Your task to perform on an android device: Show me productivity apps on the Play Store Image 0: 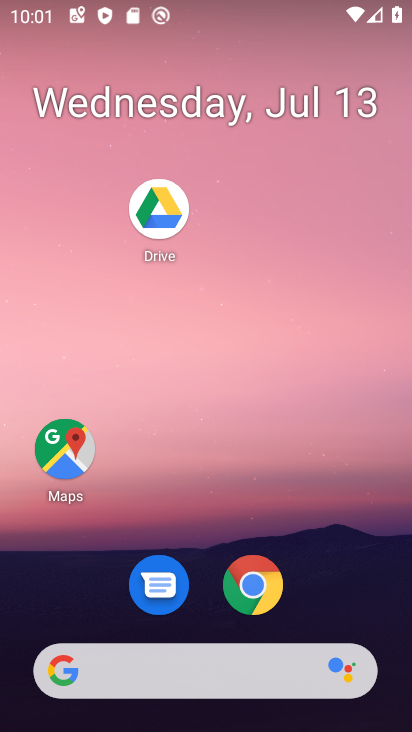
Step 0: press home button
Your task to perform on an android device: Show me productivity apps on the Play Store Image 1: 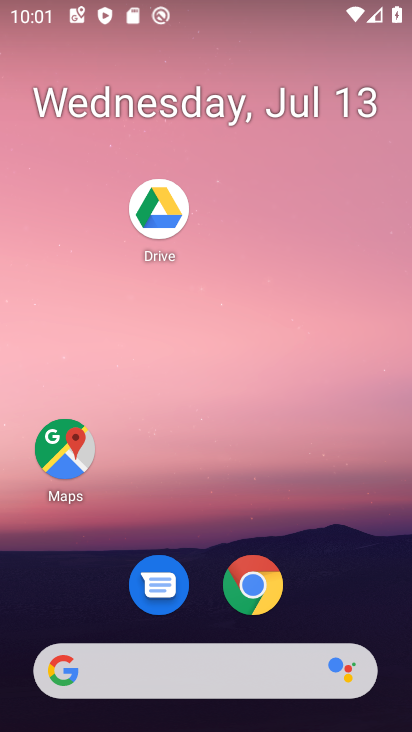
Step 1: drag from (215, 432) to (343, 33)
Your task to perform on an android device: Show me productivity apps on the Play Store Image 2: 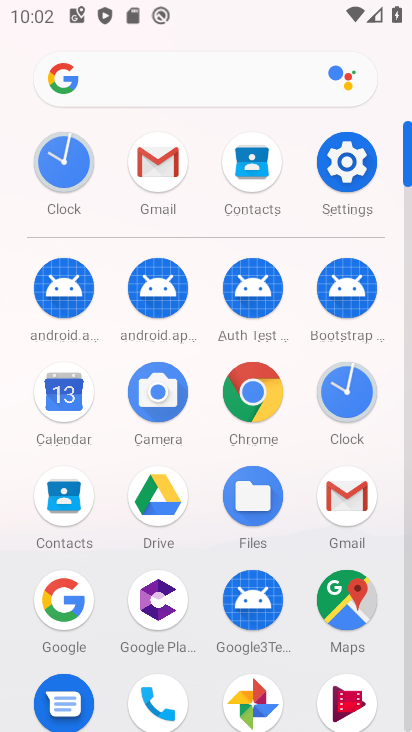
Step 2: drag from (185, 660) to (410, 58)
Your task to perform on an android device: Show me productivity apps on the Play Store Image 3: 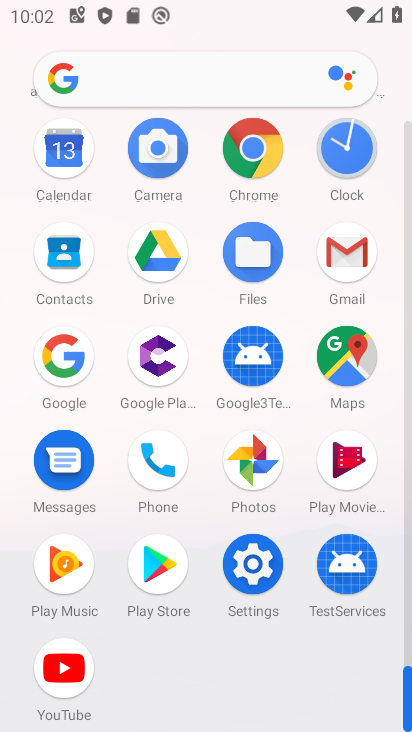
Step 3: click (155, 566)
Your task to perform on an android device: Show me productivity apps on the Play Store Image 4: 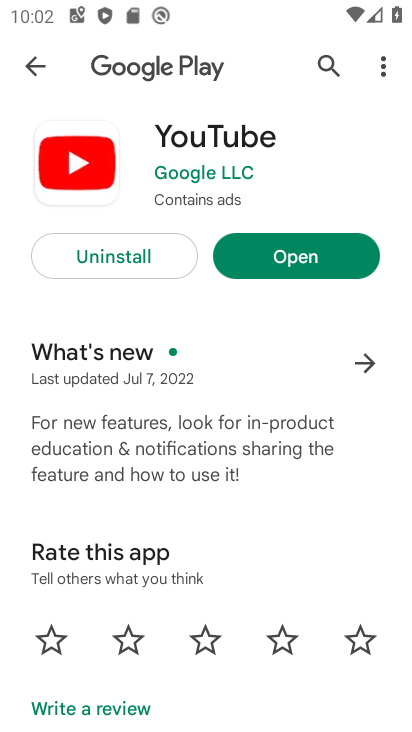
Step 4: click (37, 69)
Your task to perform on an android device: Show me productivity apps on the Play Store Image 5: 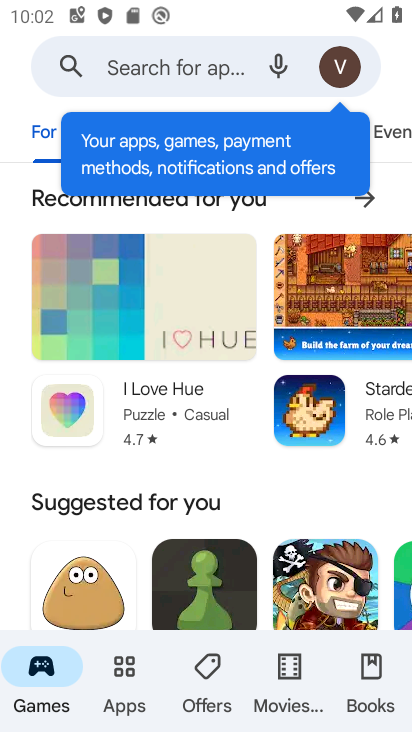
Step 5: click (114, 685)
Your task to perform on an android device: Show me productivity apps on the Play Store Image 6: 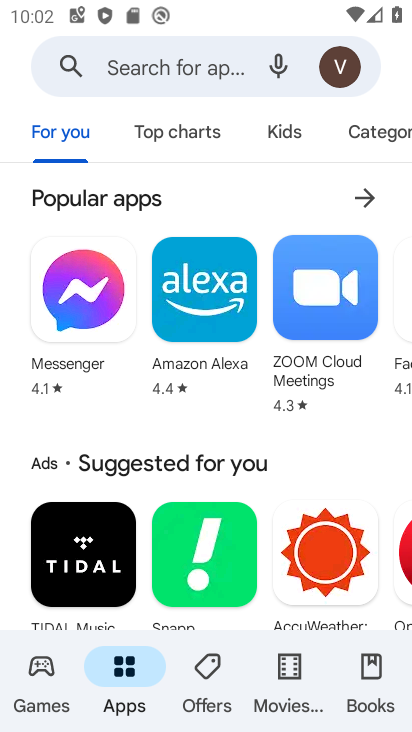
Step 6: click (377, 134)
Your task to perform on an android device: Show me productivity apps on the Play Store Image 7: 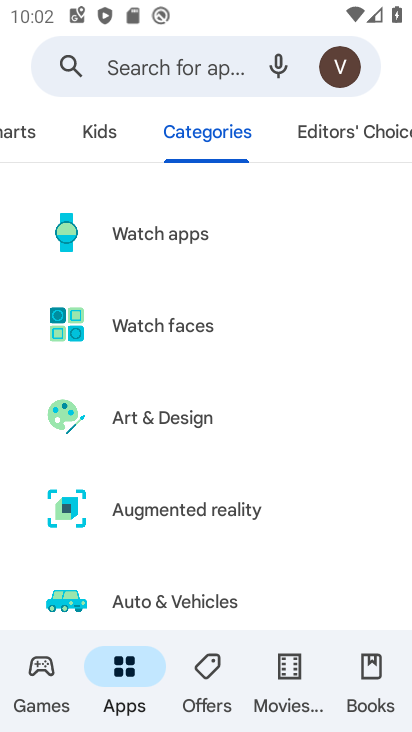
Step 7: drag from (259, 568) to (409, 140)
Your task to perform on an android device: Show me productivity apps on the Play Store Image 8: 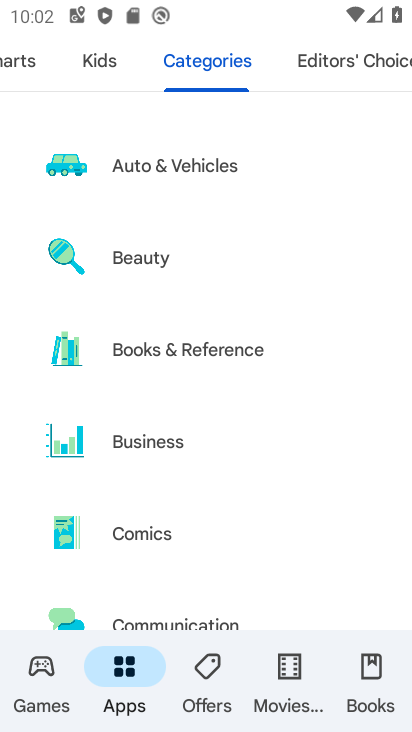
Step 8: drag from (242, 552) to (339, 15)
Your task to perform on an android device: Show me productivity apps on the Play Store Image 9: 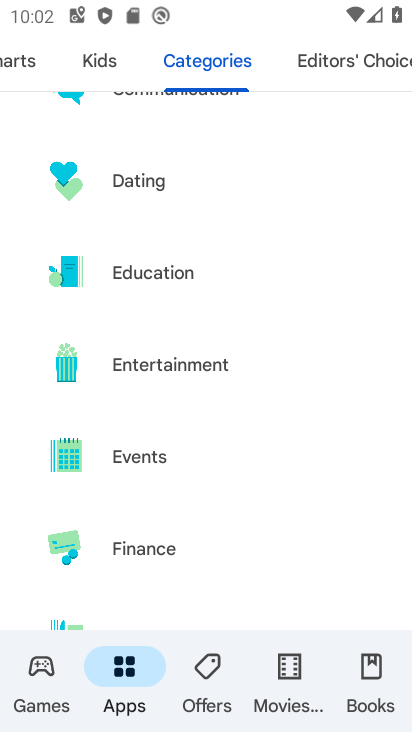
Step 9: drag from (230, 527) to (384, 21)
Your task to perform on an android device: Show me productivity apps on the Play Store Image 10: 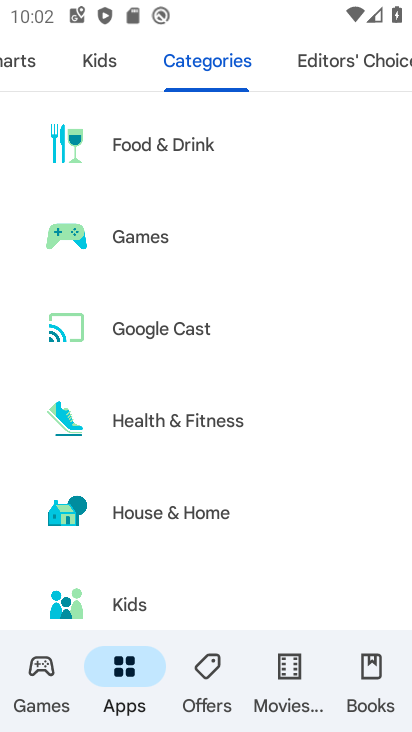
Step 10: drag from (268, 503) to (320, 10)
Your task to perform on an android device: Show me productivity apps on the Play Store Image 11: 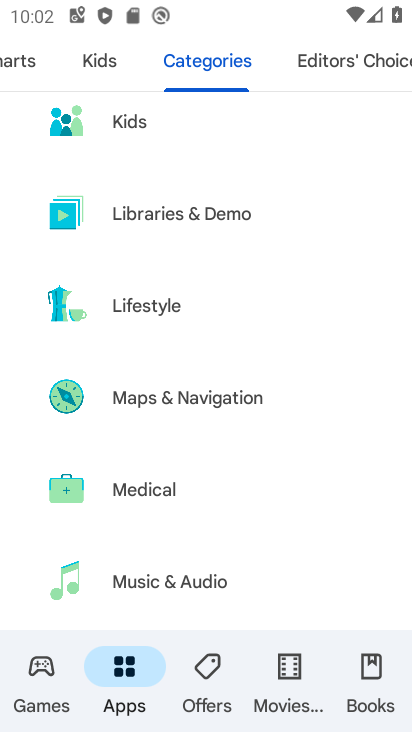
Step 11: drag from (233, 567) to (299, 113)
Your task to perform on an android device: Show me productivity apps on the Play Store Image 12: 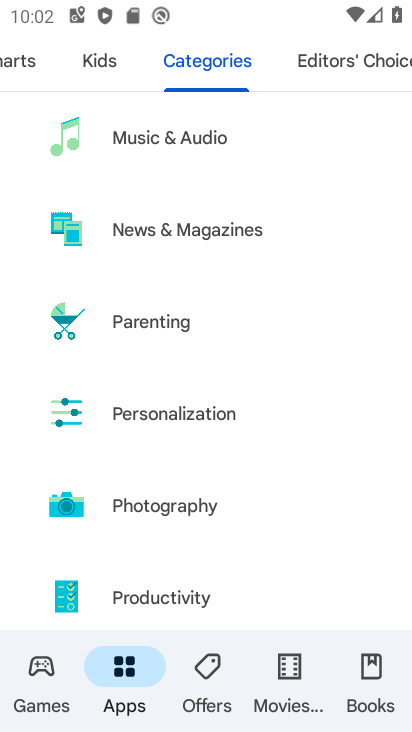
Step 12: click (174, 593)
Your task to perform on an android device: Show me productivity apps on the Play Store Image 13: 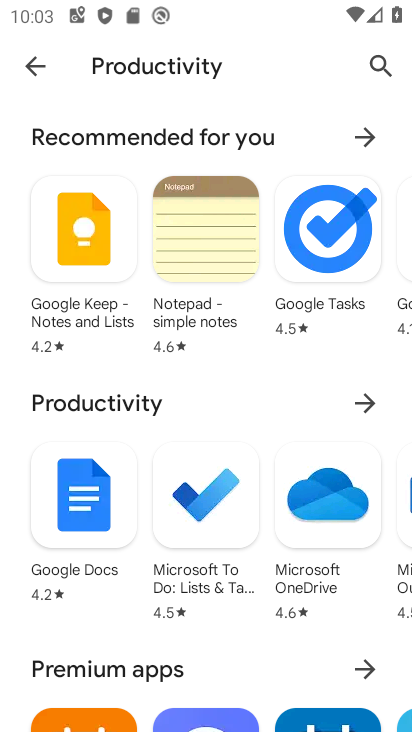
Step 13: task complete